Your task to perform on an android device: change the clock display to show seconds Image 0: 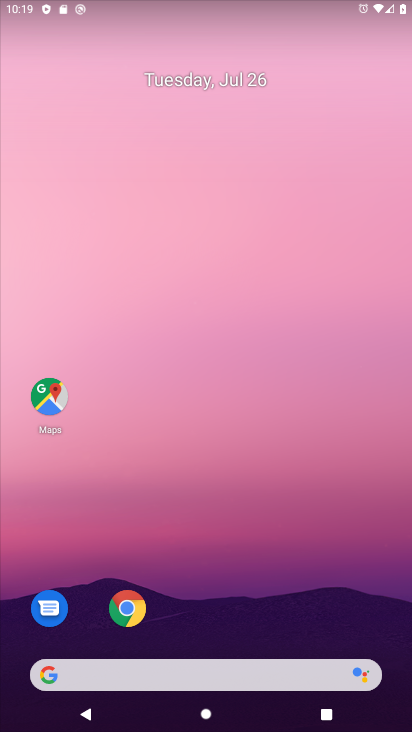
Step 0: drag from (237, 703) to (236, 284)
Your task to perform on an android device: change the clock display to show seconds Image 1: 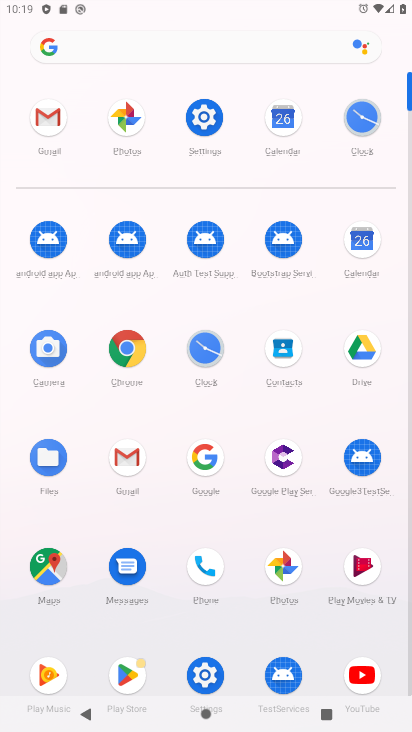
Step 1: click (202, 350)
Your task to perform on an android device: change the clock display to show seconds Image 2: 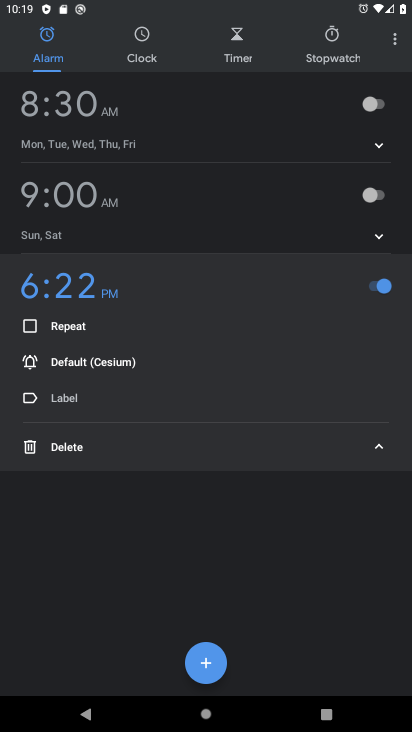
Step 2: click (395, 40)
Your task to perform on an android device: change the clock display to show seconds Image 3: 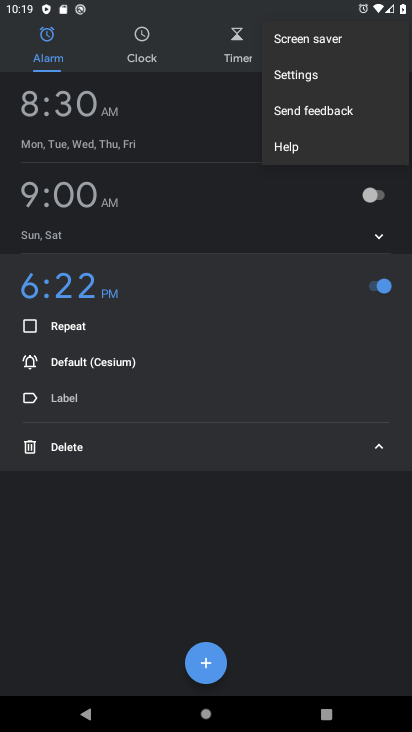
Step 3: click (301, 74)
Your task to perform on an android device: change the clock display to show seconds Image 4: 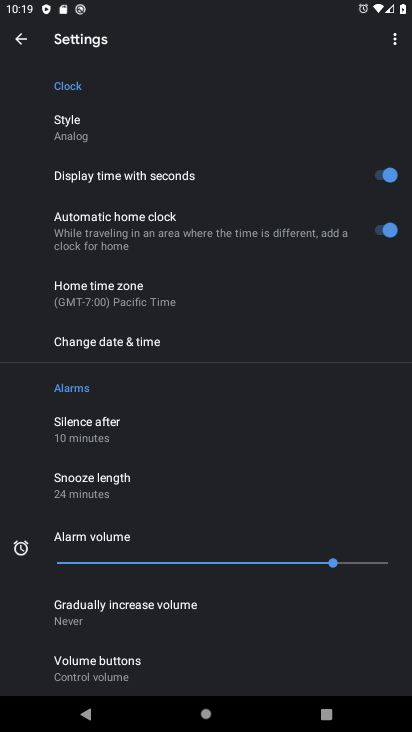
Step 4: task complete